Your task to perform on an android device: Open sound settings Image 0: 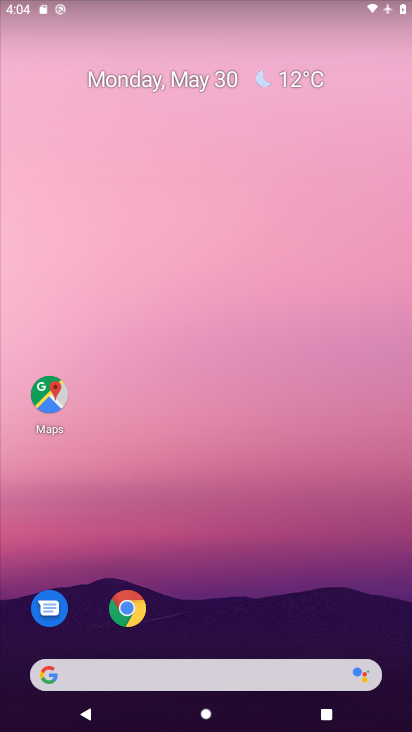
Step 0: drag from (258, 573) to (192, 41)
Your task to perform on an android device: Open sound settings Image 1: 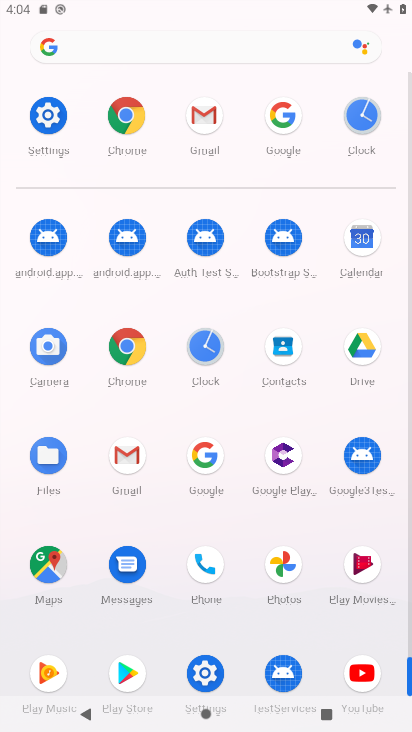
Step 1: click (55, 121)
Your task to perform on an android device: Open sound settings Image 2: 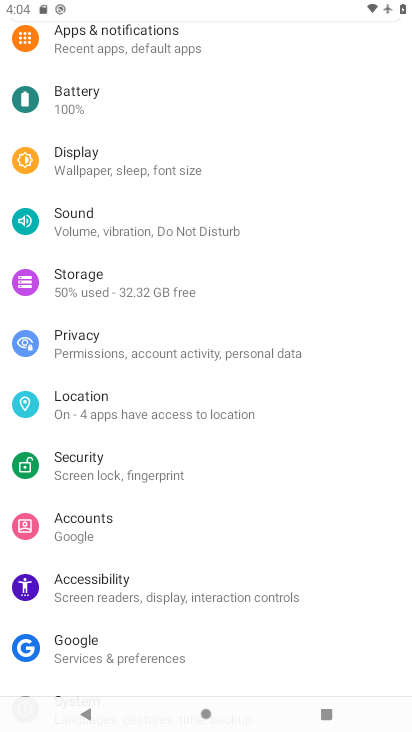
Step 2: click (113, 217)
Your task to perform on an android device: Open sound settings Image 3: 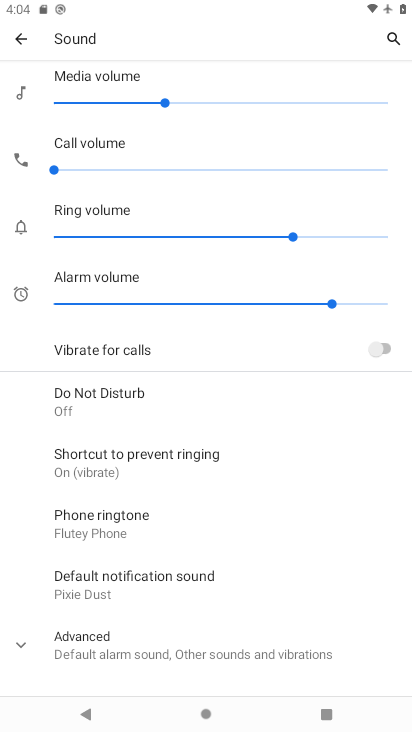
Step 3: task complete